Your task to perform on an android device: open device folders in google photos Image 0: 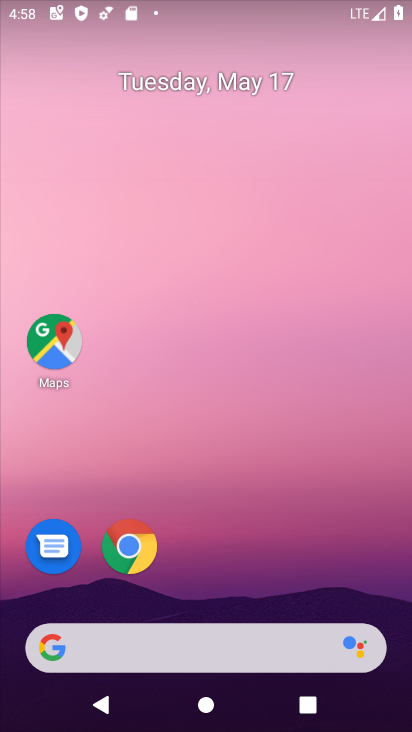
Step 0: drag from (234, 600) to (321, 77)
Your task to perform on an android device: open device folders in google photos Image 1: 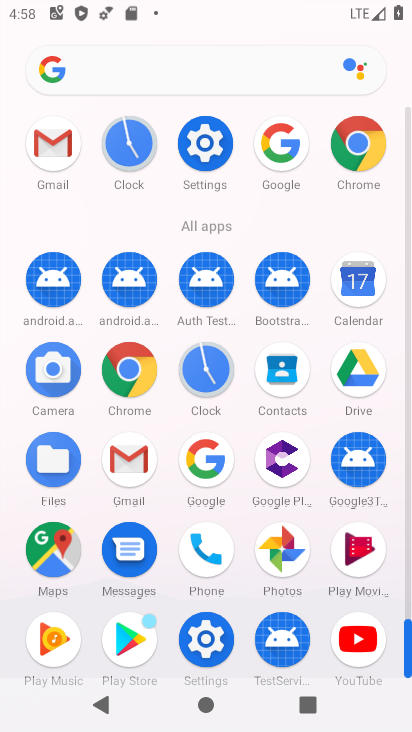
Step 1: click (290, 547)
Your task to perform on an android device: open device folders in google photos Image 2: 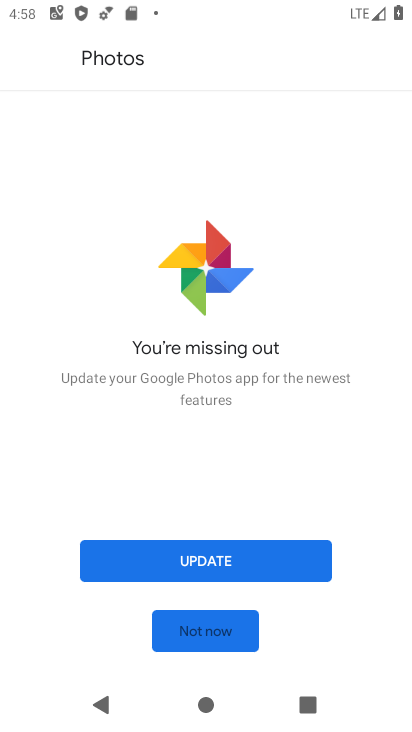
Step 2: click (214, 629)
Your task to perform on an android device: open device folders in google photos Image 3: 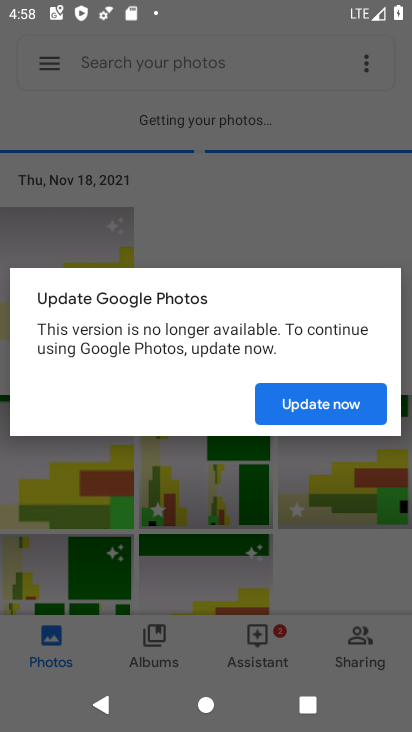
Step 3: click (310, 409)
Your task to perform on an android device: open device folders in google photos Image 4: 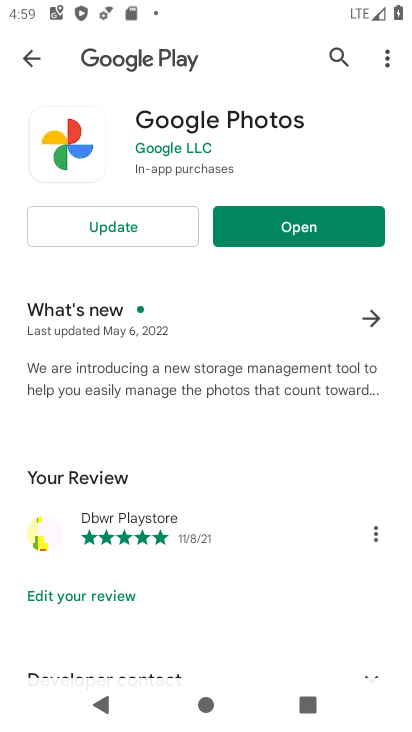
Step 4: click (265, 225)
Your task to perform on an android device: open device folders in google photos Image 5: 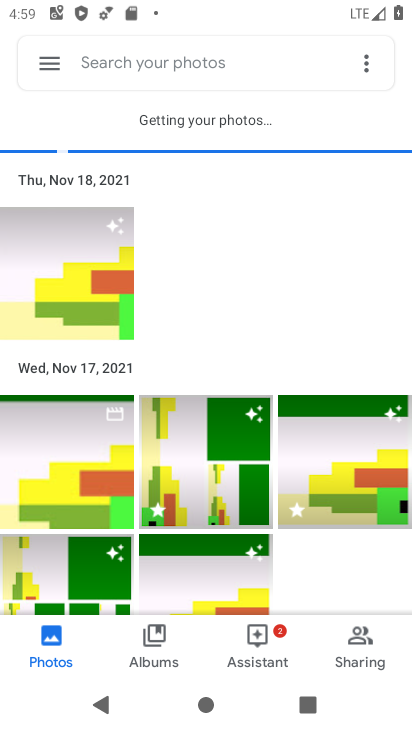
Step 5: click (40, 56)
Your task to perform on an android device: open device folders in google photos Image 6: 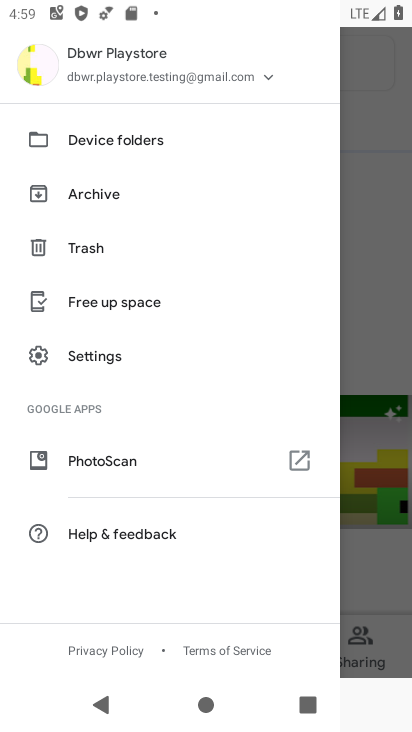
Step 6: click (117, 137)
Your task to perform on an android device: open device folders in google photos Image 7: 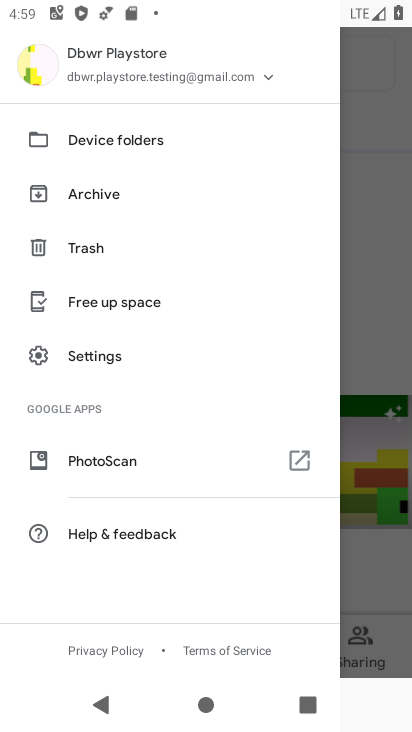
Step 7: click (103, 146)
Your task to perform on an android device: open device folders in google photos Image 8: 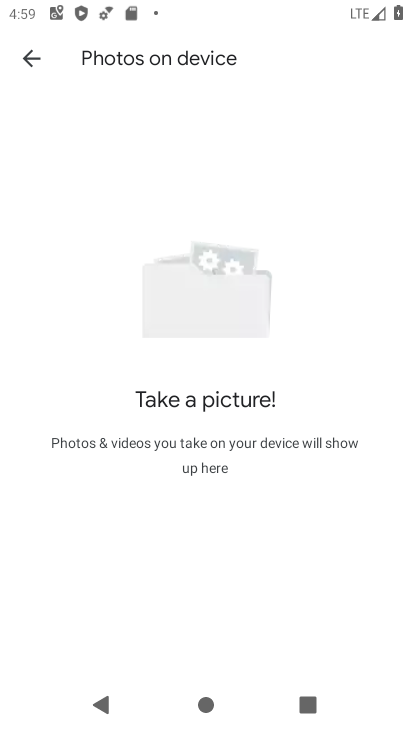
Step 8: task complete